Your task to perform on an android device: toggle location history Image 0: 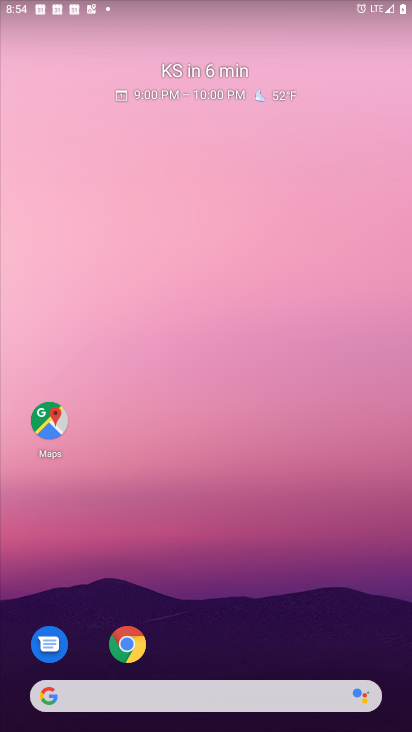
Step 0: click (50, 417)
Your task to perform on an android device: toggle location history Image 1: 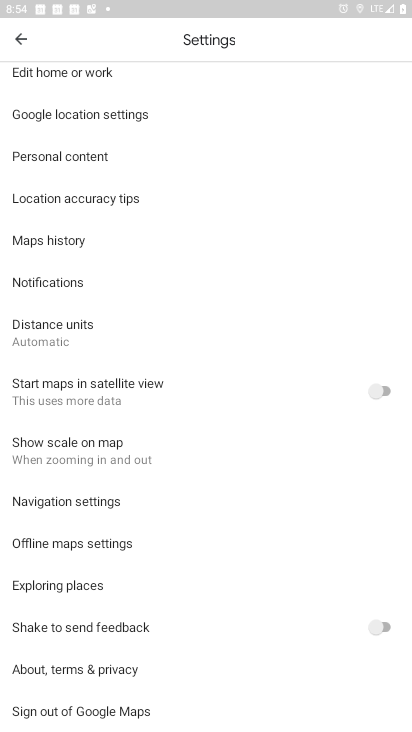
Step 1: click (52, 158)
Your task to perform on an android device: toggle location history Image 2: 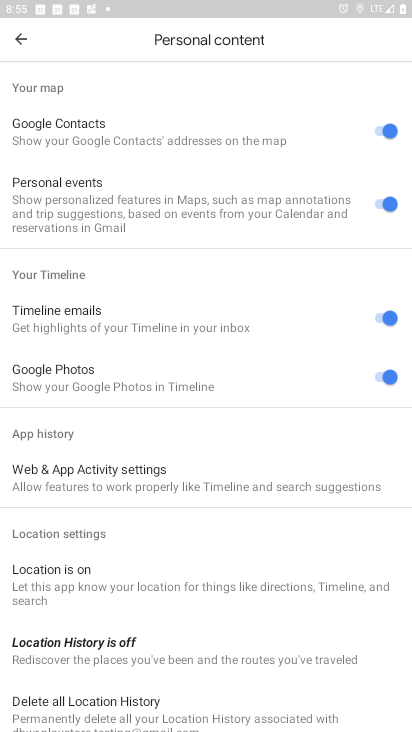
Step 2: drag from (195, 576) to (205, 332)
Your task to perform on an android device: toggle location history Image 3: 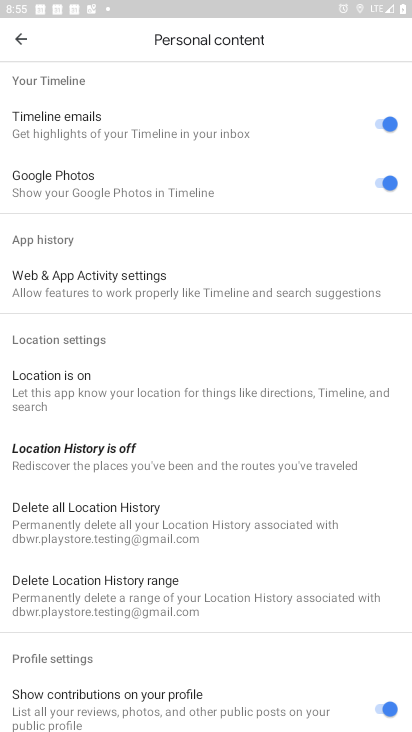
Step 3: click (69, 451)
Your task to perform on an android device: toggle location history Image 4: 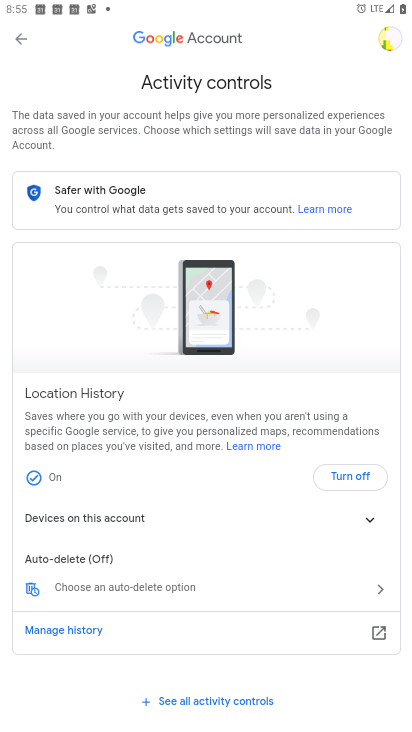
Step 4: click (349, 476)
Your task to perform on an android device: toggle location history Image 5: 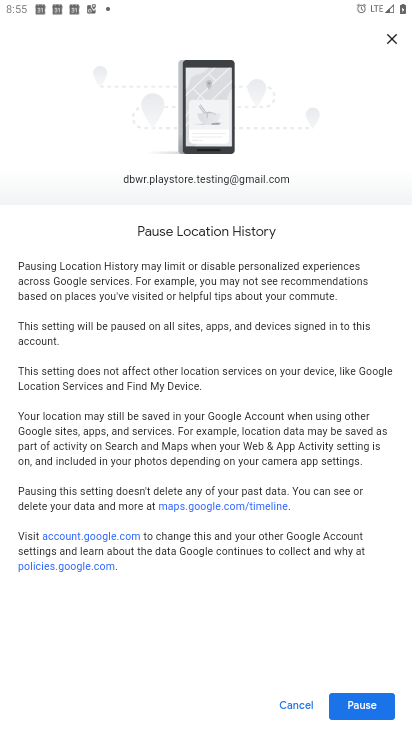
Step 5: click (355, 700)
Your task to perform on an android device: toggle location history Image 6: 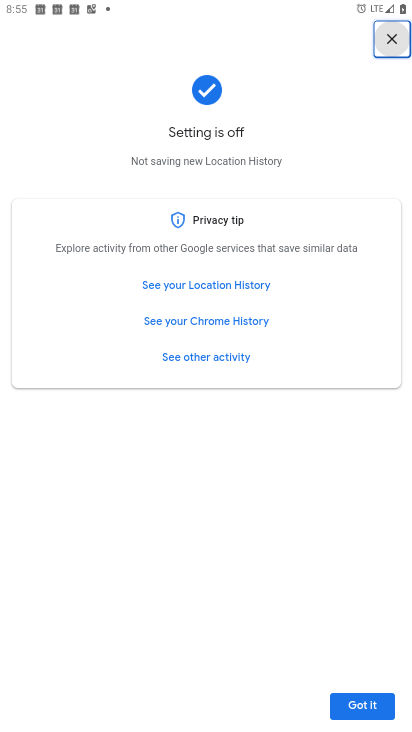
Step 6: click (357, 704)
Your task to perform on an android device: toggle location history Image 7: 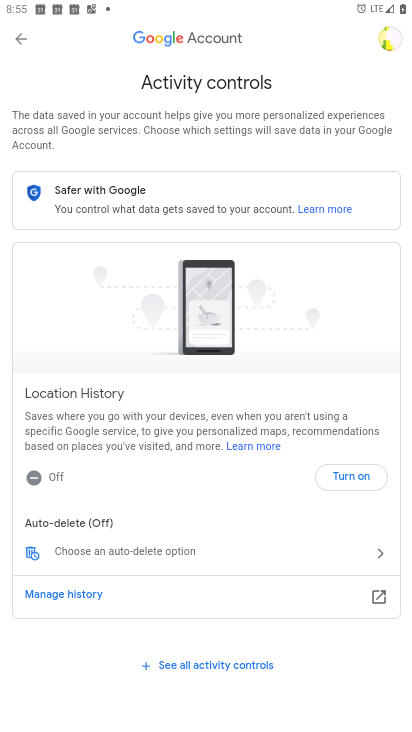
Step 7: task complete